Your task to perform on an android device: turn off wifi Image 0: 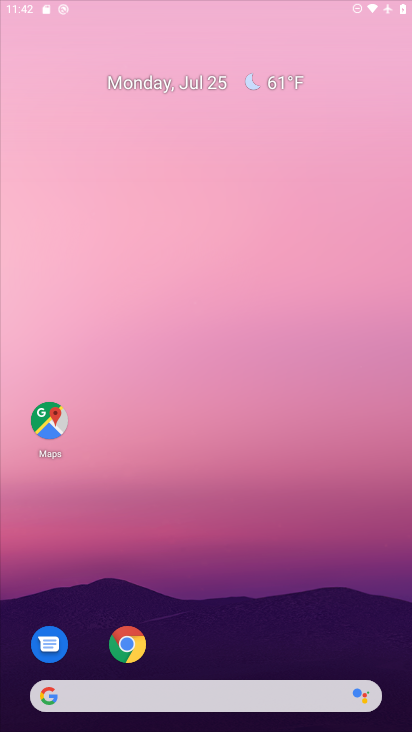
Step 0: click (204, 612)
Your task to perform on an android device: turn off wifi Image 1: 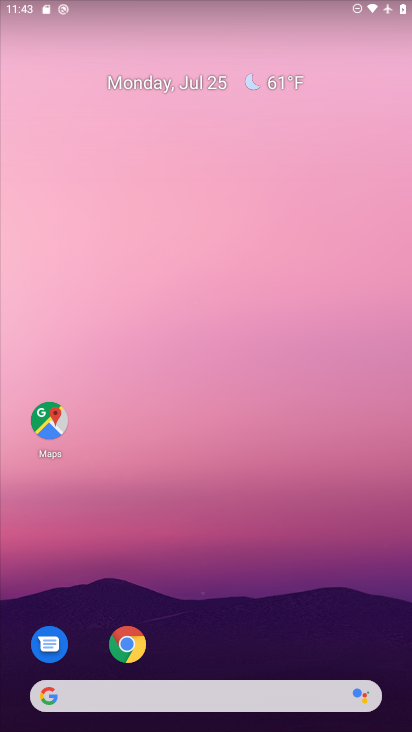
Step 1: drag from (225, 652) to (234, 322)
Your task to perform on an android device: turn off wifi Image 2: 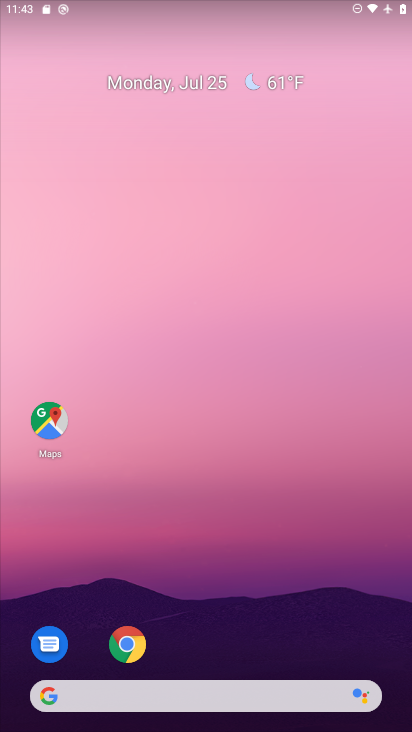
Step 2: drag from (215, 631) to (212, 276)
Your task to perform on an android device: turn off wifi Image 3: 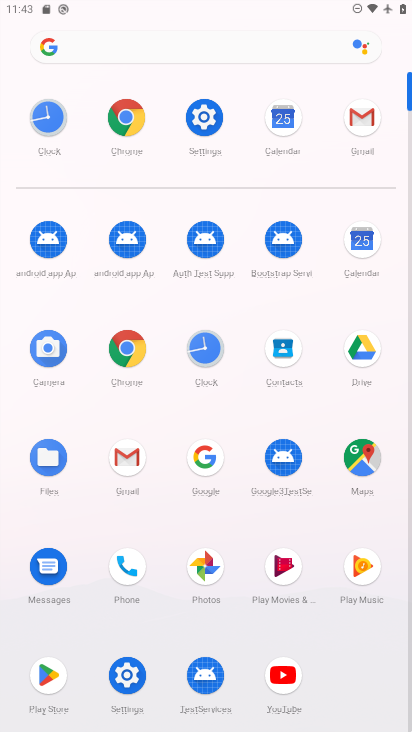
Step 3: click (195, 117)
Your task to perform on an android device: turn off wifi Image 4: 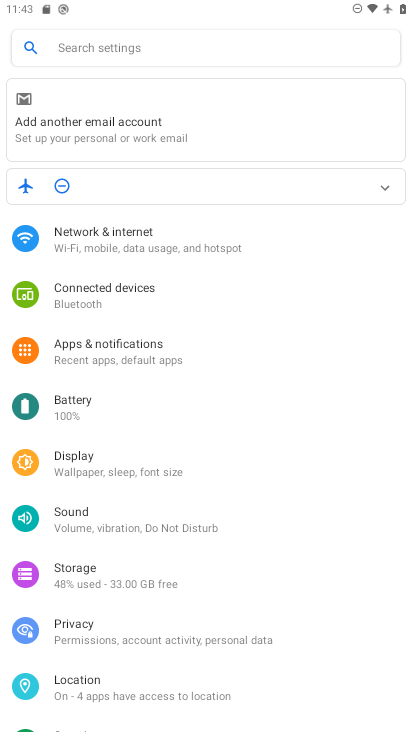
Step 4: click (112, 242)
Your task to perform on an android device: turn off wifi Image 5: 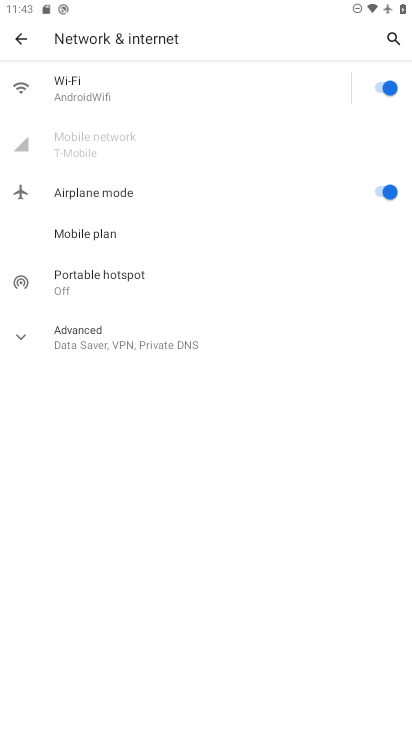
Step 5: click (390, 85)
Your task to perform on an android device: turn off wifi Image 6: 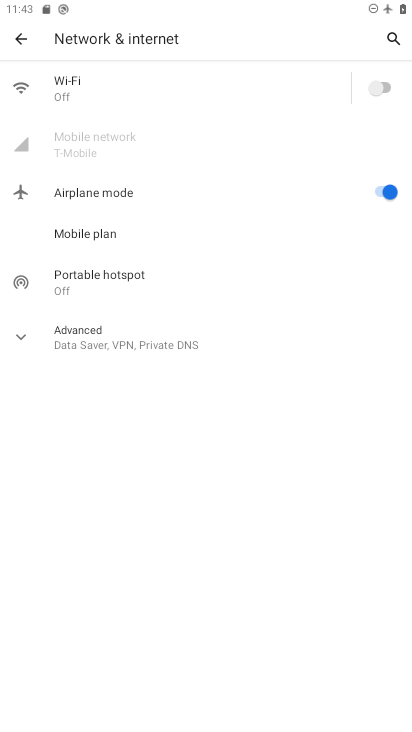
Step 6: task complete